Your task to perform on an android device: Check the news Image 0: 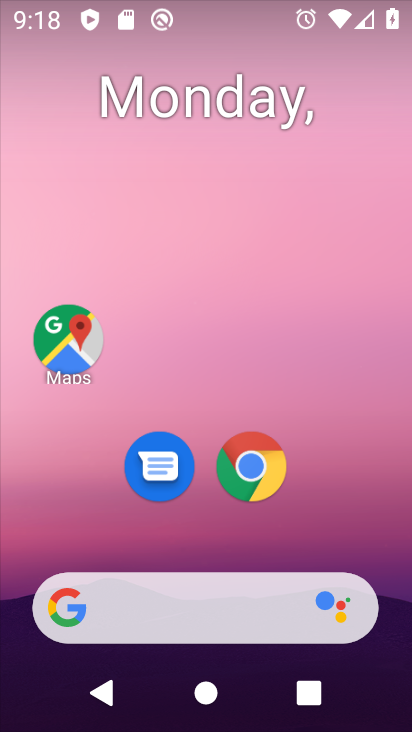
Step 0: drag from (352, 698) to (99, 0)
Your task to perform on an android device: Check the news Image 1: 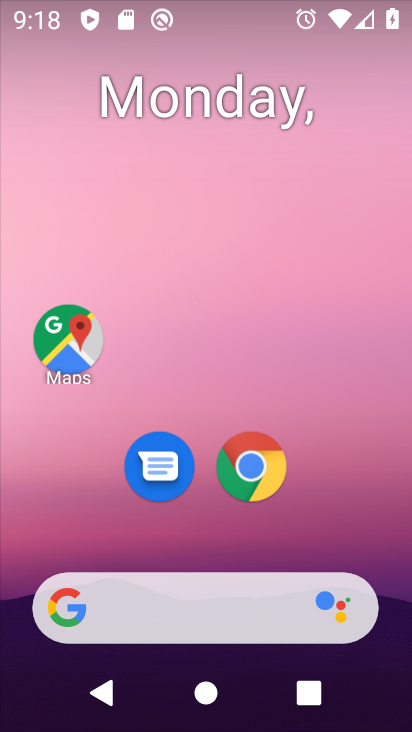
Step 1: task complete